Your task to perform on an android device: Add energizer triple a to the cart on costco.com, then select checkout. Image 0: 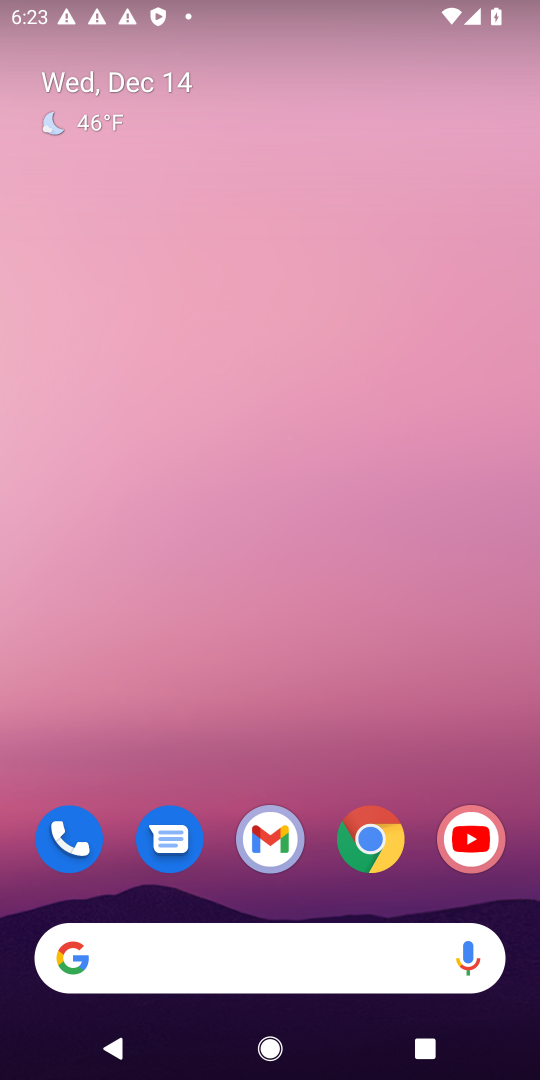
Step 0: task complete